Your task to perform on an android device: toggle show notifications on the lock screen Image 0: 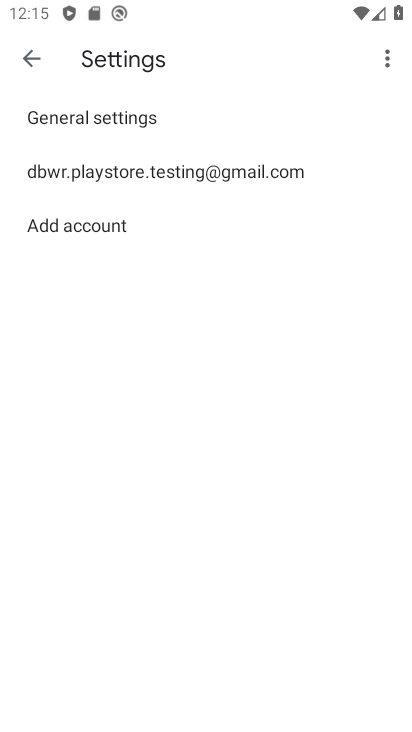
Step 0: press back button
Your task to perform on an android device: toggle show notifications on the lock screen Image 1: 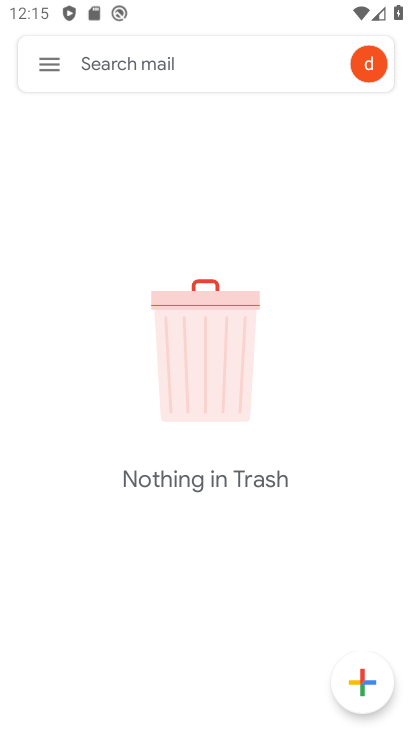
Step 1: press home button
Your task to perform on an android device: toggle show notifications on the lock screen Image 2: 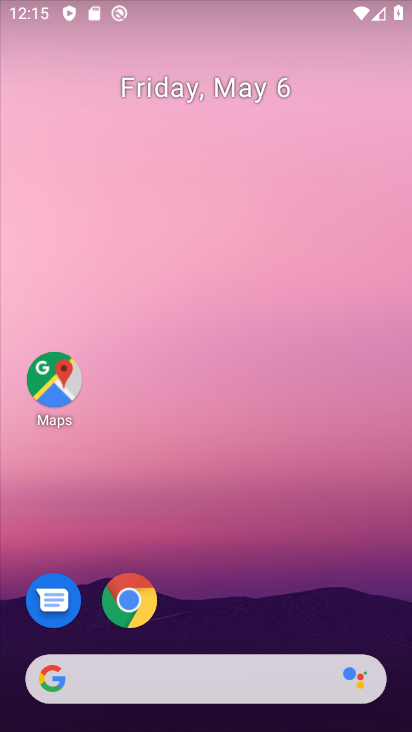
Step 2: drag from (103, 701) to (239, 61)
Your task to perform on an android device: toggle show notifications on the lock screen Image 3: 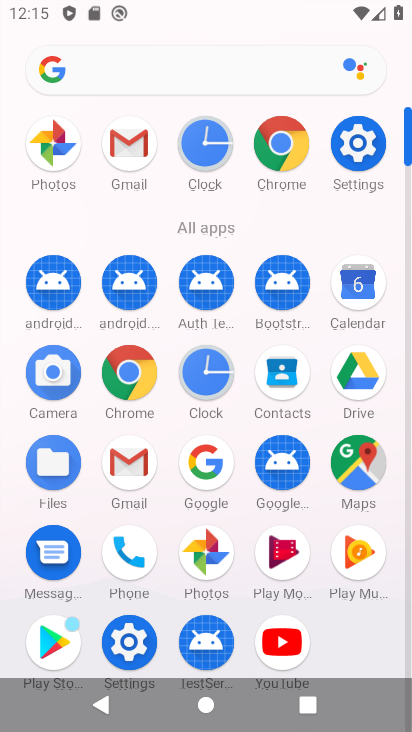
Step 3: drag from (153, 680) to (208, 426)
Your task to perform on an android device: toggle show notifications on the lock screen Image 4: 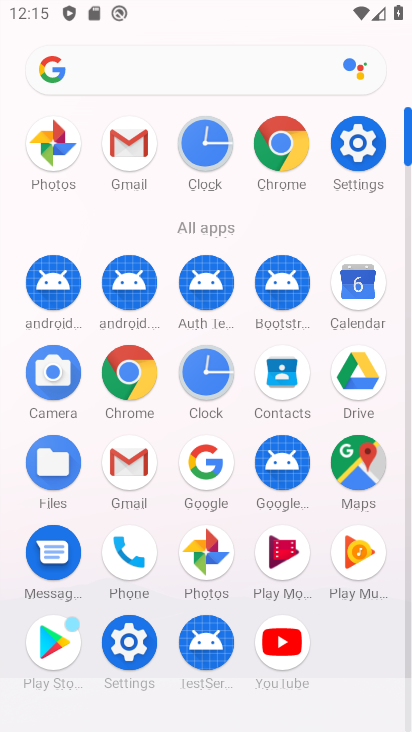
Step 4: click (127, 648)
Your task to perform on an android device: toggle show notifications on the lock screen Image 5: 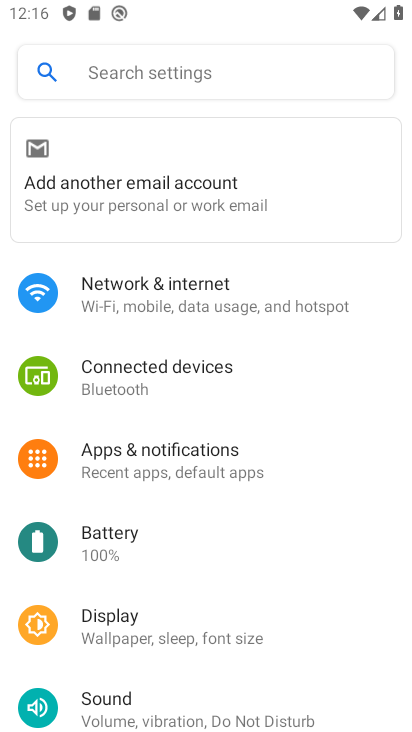
Step 5: click (214, 473)
Your task to perform on an android device: toggle show notifications on the lock screen Image 6: 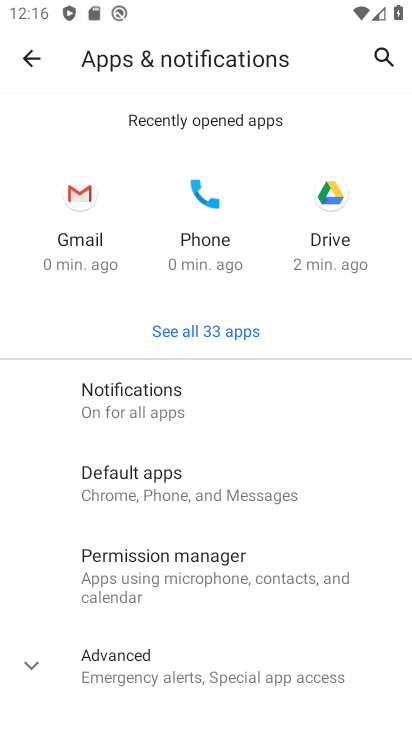
Step 6: drag from (209, 593) to (260, 348)
Your task to perform on an android device: toggle show notifications on the lock screen Image 7: 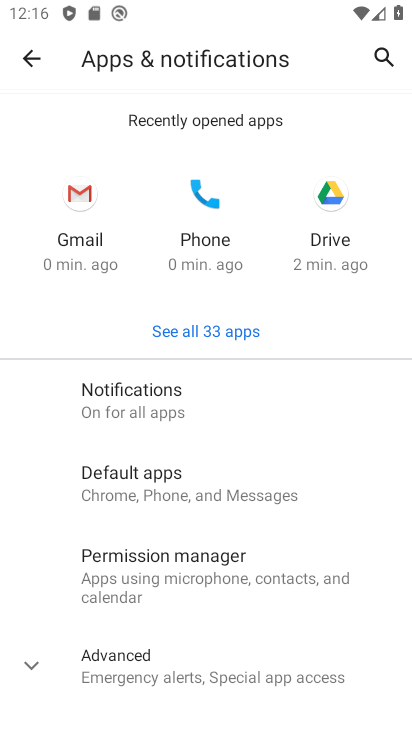
Step 7: click (185, 380)
Your task to perform on an android device: toggle show notifications on the lock screen Image 8: 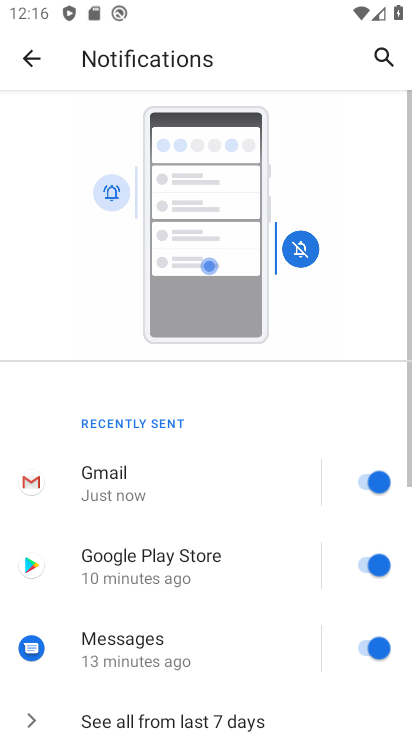
Step 8: drag from (163, 726) to (269, 297)
Your task to perform on an android device: toggle show notifications on the lock screen Image 9: 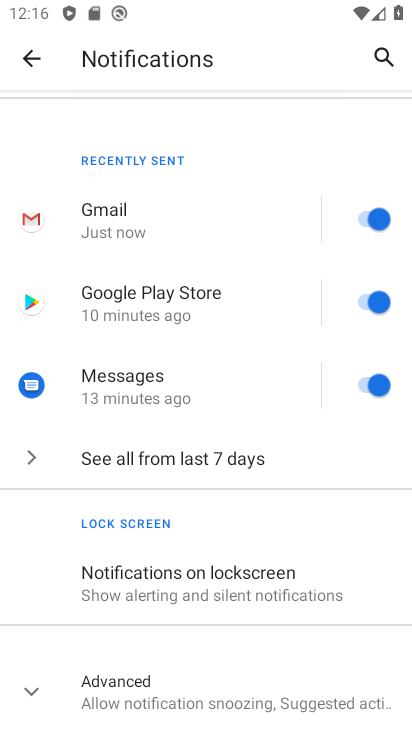
Step 9: click (207, 584)
Your task to perform on an android device: toggle show notifications on the lock screen Image 10: 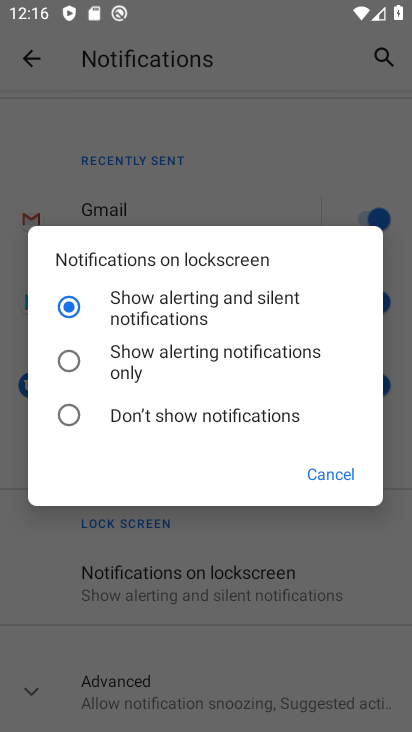
Step 10: click (72, 419)
Your task to perform on an android device: toggle show notifications on the lock screen Image 11: 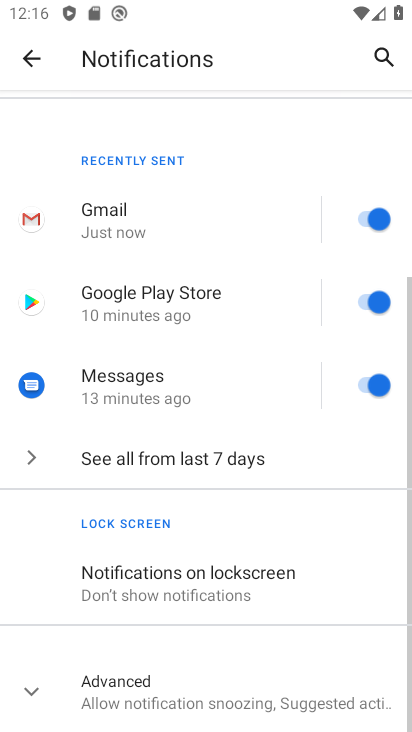
Step 11: task complete